Your task to perform on an android device: turn off notifications settings in the gmail app Image 0: 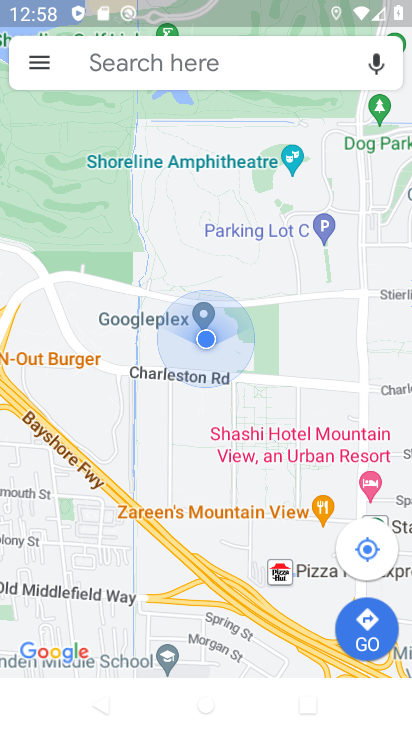
Step 0: press home button
Your task to perform on an android device: turn off notifications settings in the gmail app Image 1: 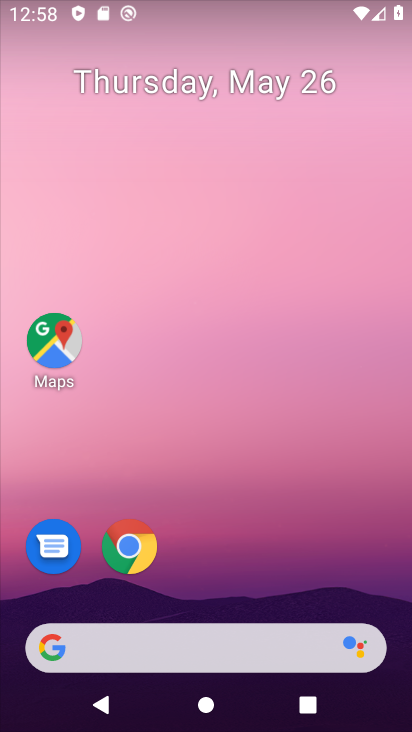
Step 1: drag from (201, 645) to (134, 21)
Your task to perform on an android device: turn off notifications settings in the gmail app Image 2: 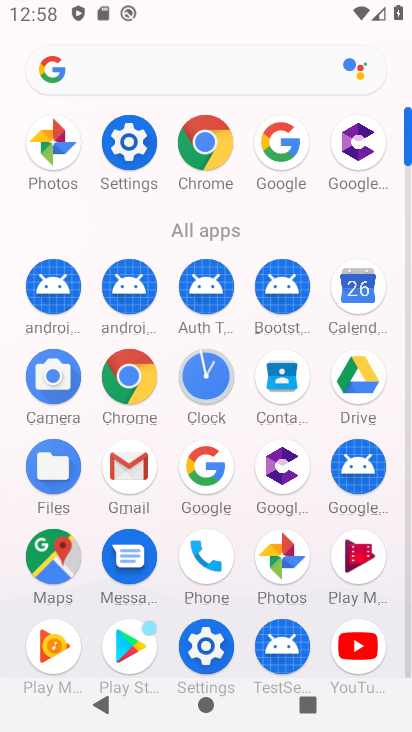
Step 2: click (133, 474)
Your task to perform on an android device: turn off notifications settings in the gmail app Image 3: 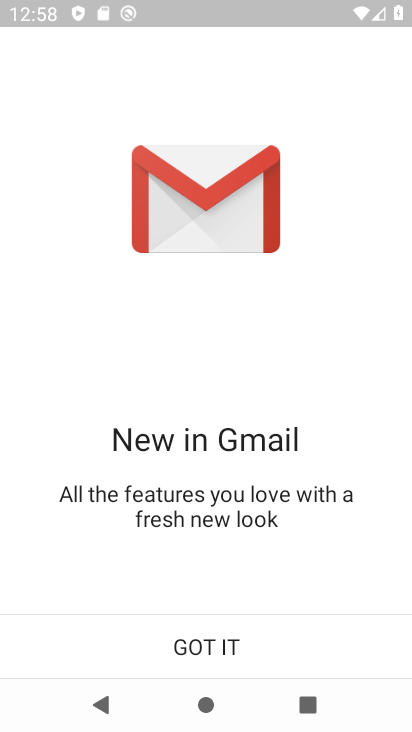
Step 3: click (264, 651)
Your task to perform on an android device: turn off notifications settings in the gmail app Image 4: 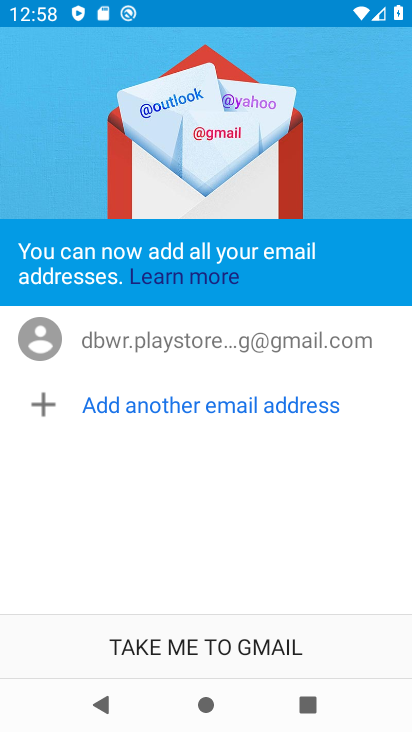
Step 4: click (264, 651)
Your task to perform on an android device: turn off notifications settings in the gmail app Image 5: 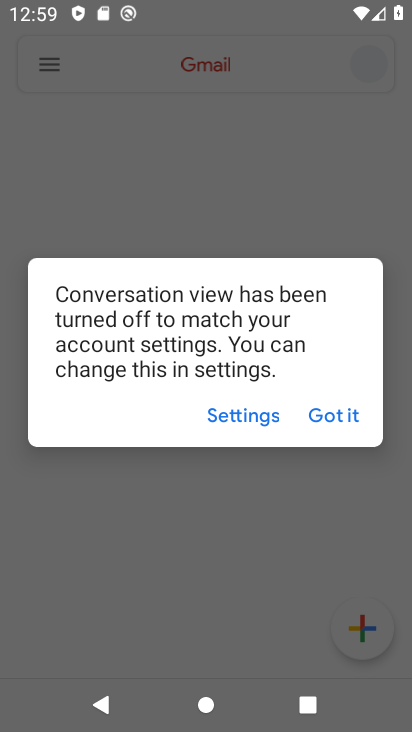
Step 5: click (354, 416)
Your task to perform on an android device: turn off notifications settings in the gmail app Image 6: 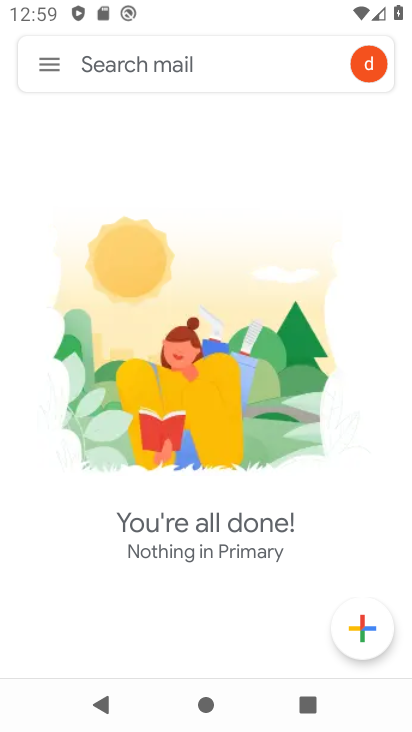
Step 6: click (47, 65)
Your task to perform on an android device: turn off notifications settings in the gmail app Image 7: 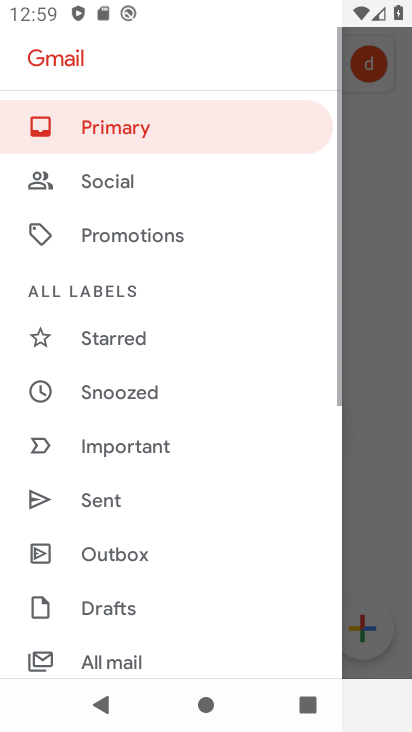
Step 7: drag from (177, 562) to (58, 5)
Your task to perform on an android device: turn off notifications settings in the gmail app Image 8: 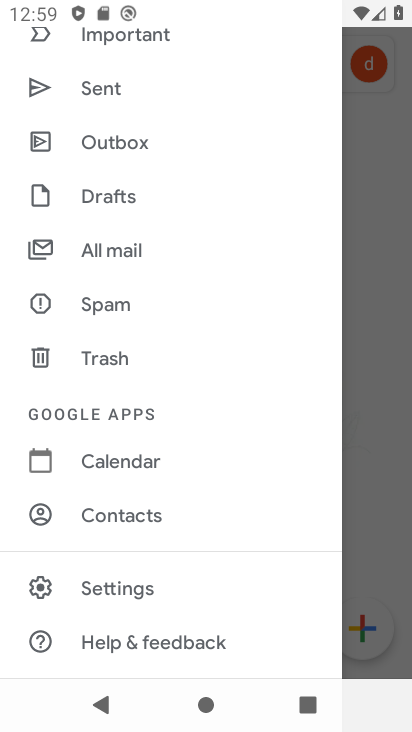
Step 8: click (160, 578)
Your task to perform on an android device: turn off notifications settings in the gmail app Image 9: 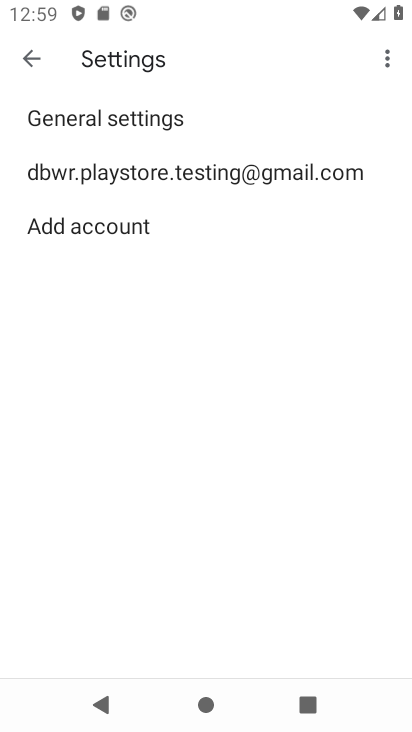
Step 9: click (124, 187)
Your task to perform on an android device: turn off notifications settings in the gmail app Image 10: 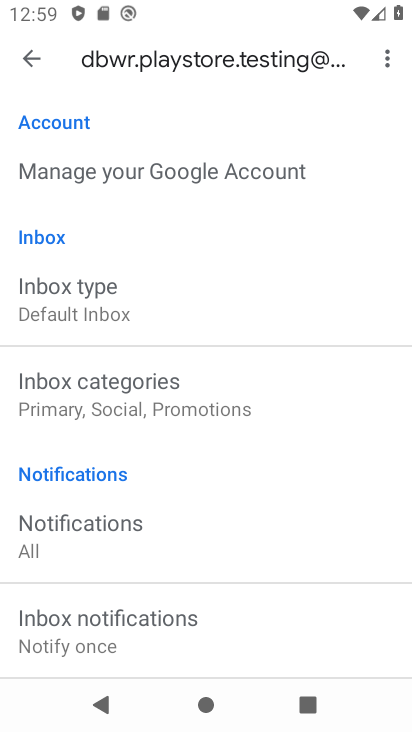
Step 10: drag from (195, 594) to (267, 96)
Your task to perform on an android device: turn off notifications settings in the gmail app Image 11: 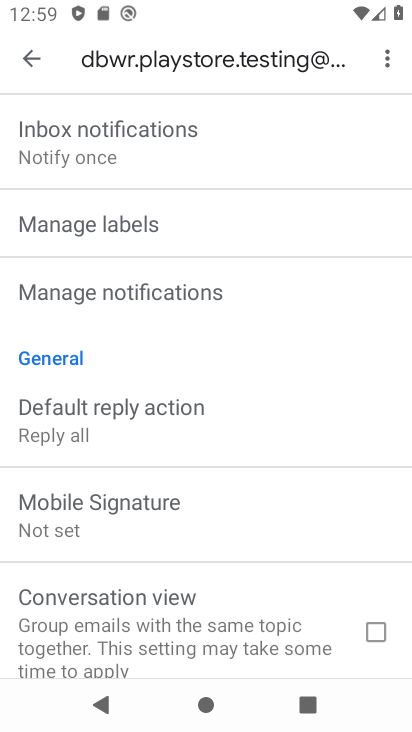
Step 11: click (132, 296)
Your task to perform on an android device: turn off notifications settings in the gmail app Image 12: 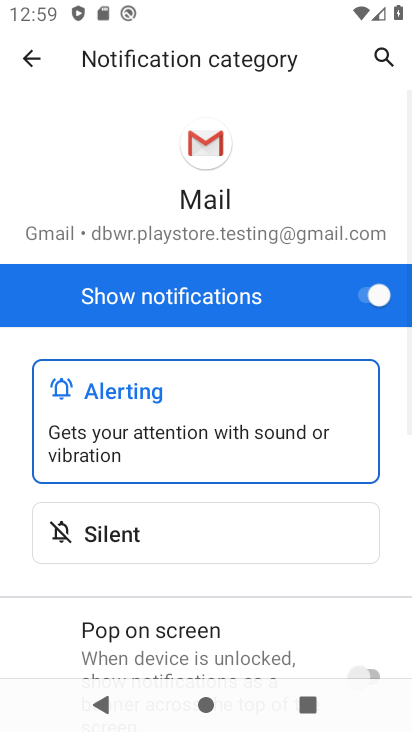
Step 12: click (371, 307)
Your task to perform on an android device: turn off notifications settings in the gmail app Image 13: 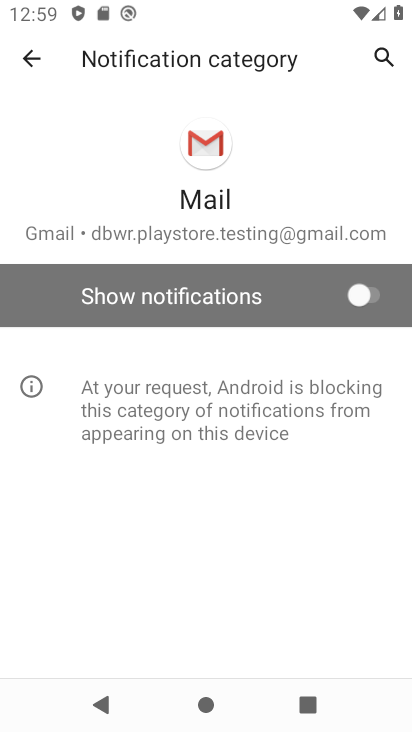
Step 13: task complete